Your task to perform on an android device: Check the weather Image 0: 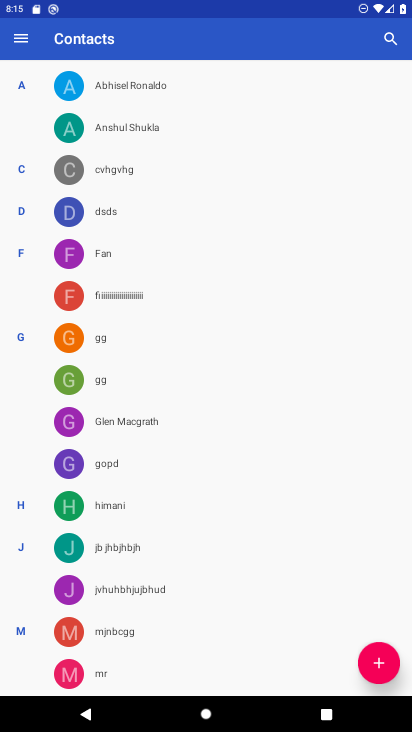
Step 0: press home button
Your task to perform on an android device: Check the weather Image 1: 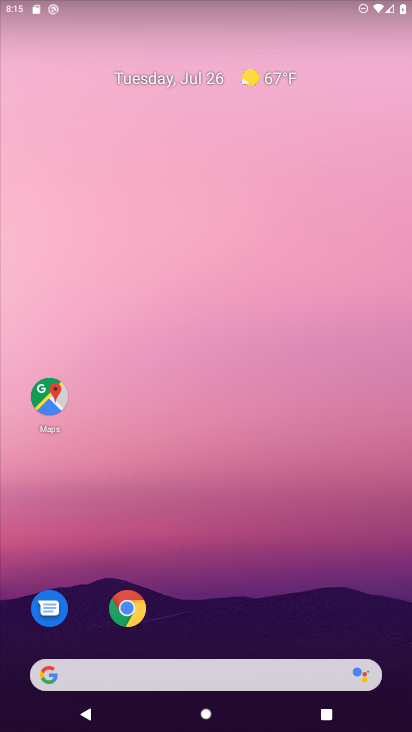
Step 1: click (191, 670)
Your task to perform on an android device: Check the weather Image 2: 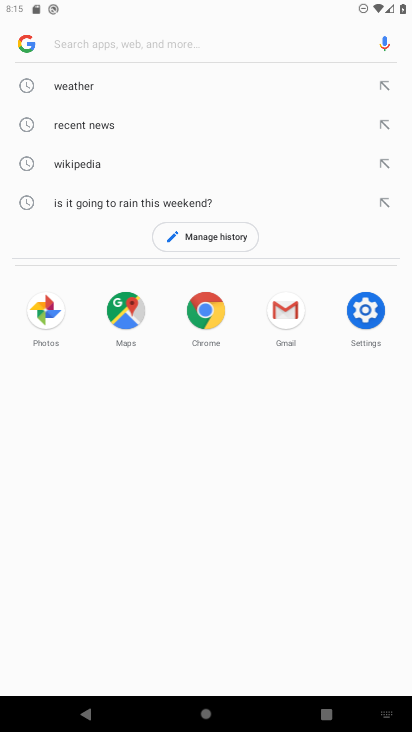
Step 2: click (80, 82)
Your task to perform on an android device: Check the weather Image 3: 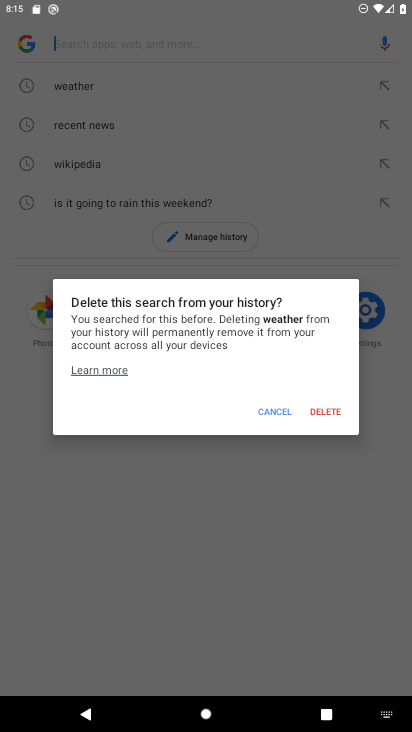
Step 3: click (278, 403)
Your task to perform on an android device: Check the weather Image 4: 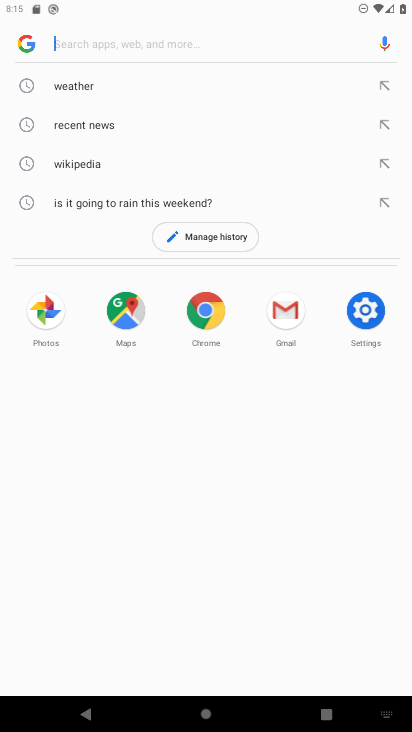
Step 4: click (102, 87)
Your task to perform on an android device: Check the weather Image 5: 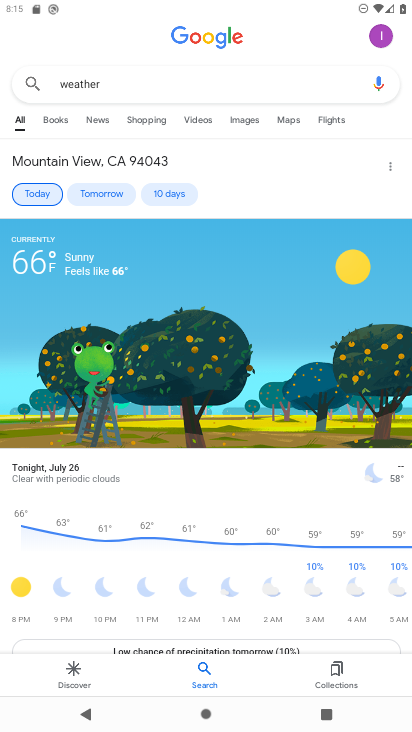
Step 5: task complete